Your task to perform on an android device: Show me the alarms in the clock app Image 0: 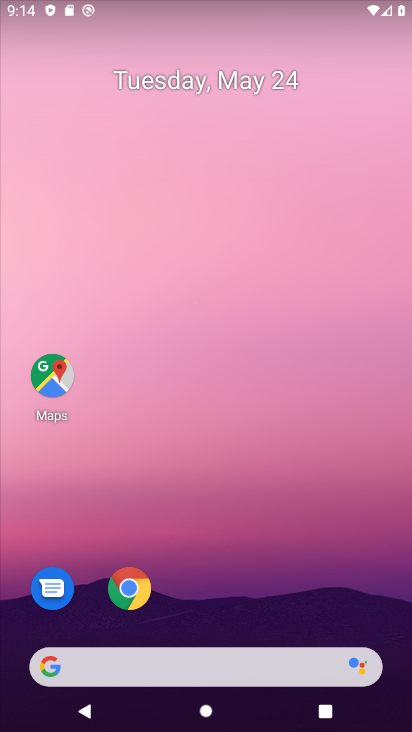
Step 0: drag from (225, 601) to (241, 19)
Your task to perform on an android device: Show me the alarms in the clock app Image 1: 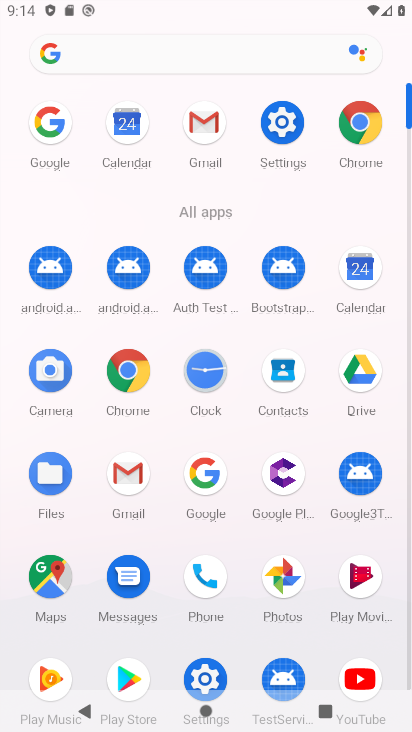
Step 1: click (209, 374)
Your task to perform on an android device: Show me the alarms in the clock app Image 2: 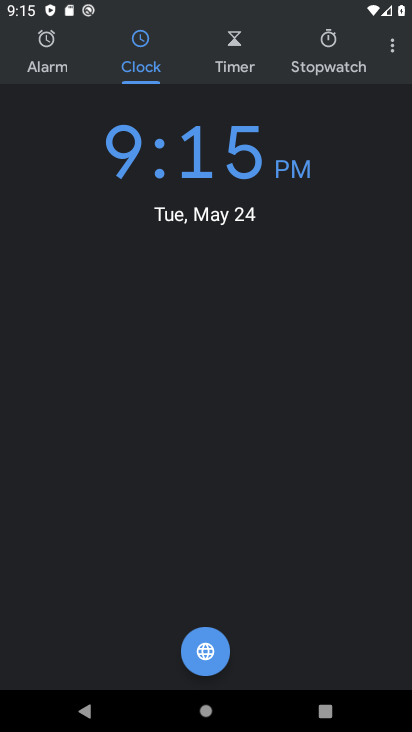
Step 2: click (50, 55)
Your task to perform on an android device: Show me the alarms in the clock app Image 3: 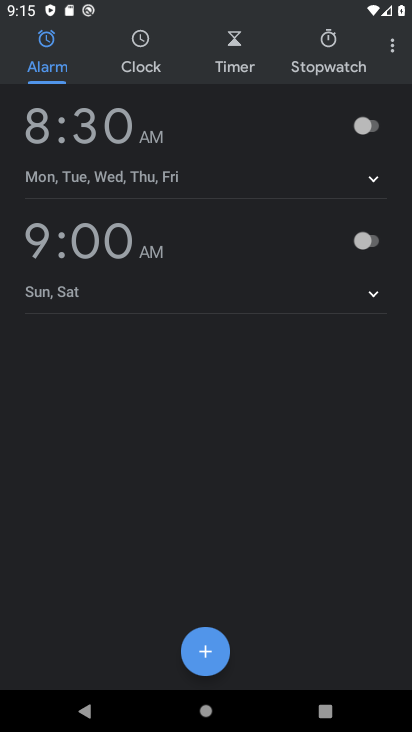
Step 3: task complete